Your task to perform on an android device: Show the shopping cart on walmart. Search for "alienware aurora" on walmart, select the first entry, and add it to the cart. Image 0: 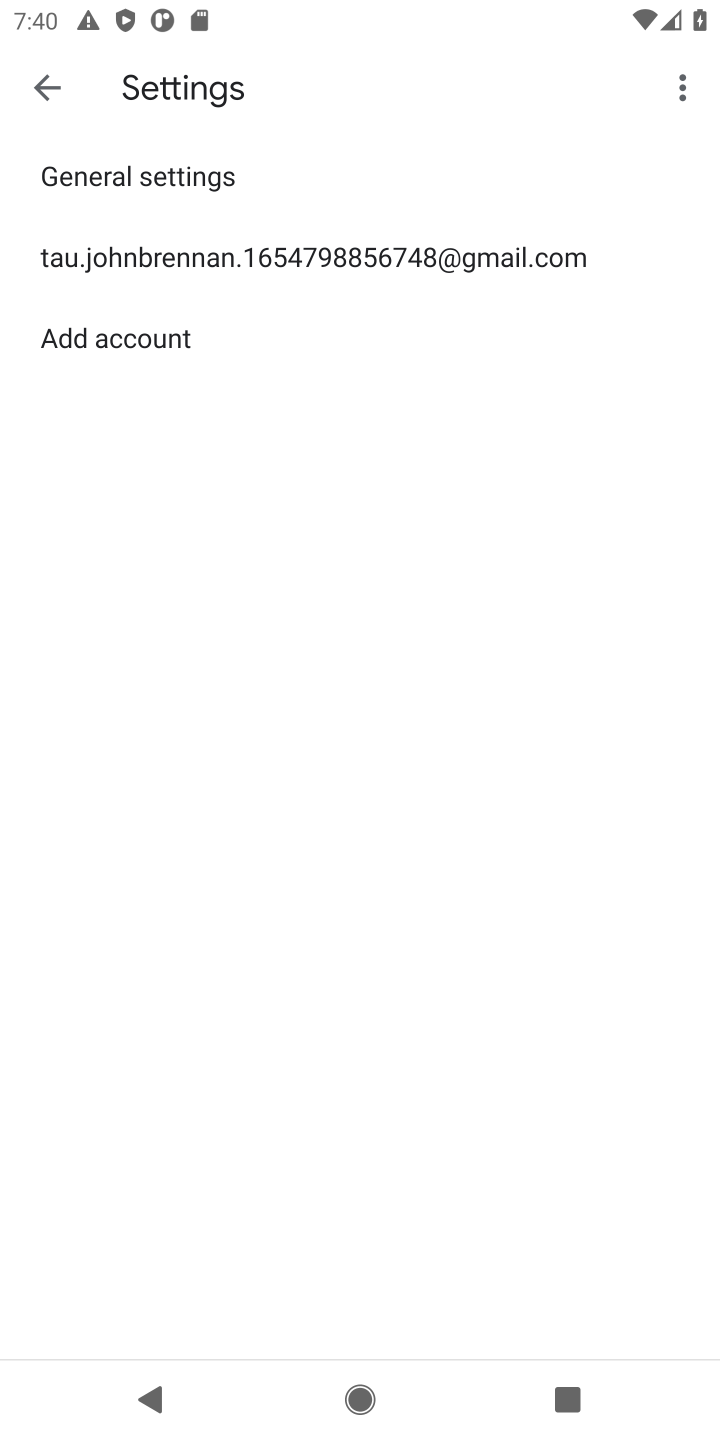
Step 0: press home button
Your task to perform on an android device: Show the shopping cart on walmart. Search for "alienware aurora" on walmart, select the first entry, and add it to the cart. Image 1: 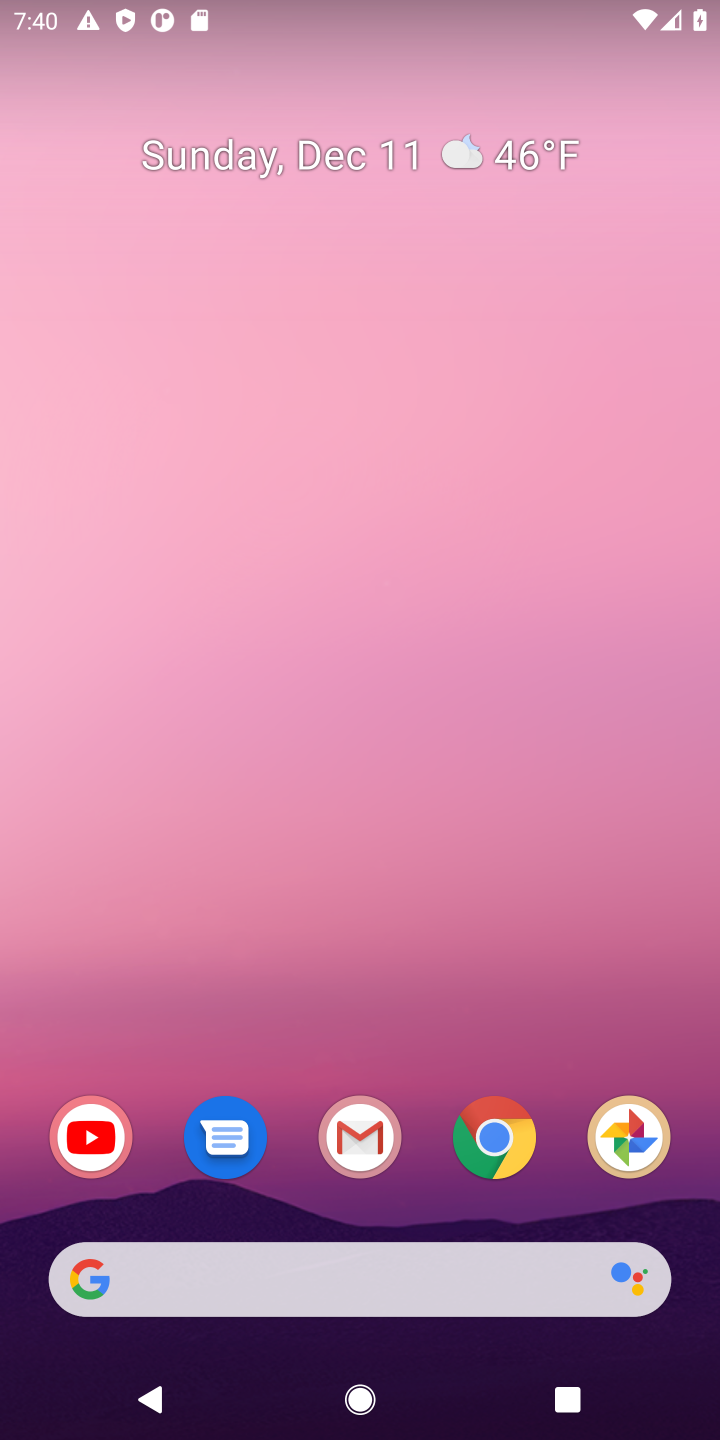
Step 1: click (496, 1143)
Your task to perform on an android device: Show the shopping cart on walmart. Search for "alienware aurora" on walmart, select the first entry, and add it to the cart. Image 2: 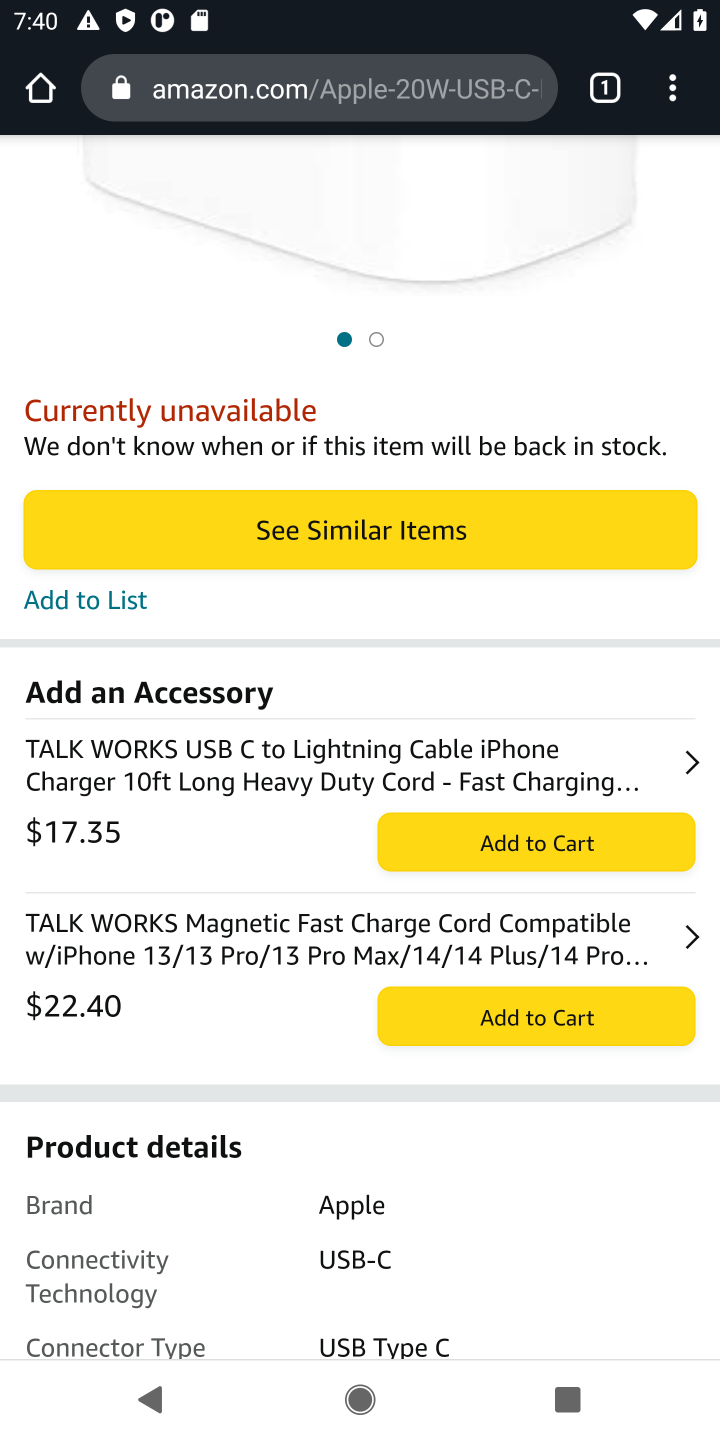
Step 2: click (330, 98)
Your task to perform on an android device: Show the shopping cart on walmart. Search for "alienware aurora" on walmart, select the first entry, and add it to the cart. Image 3: 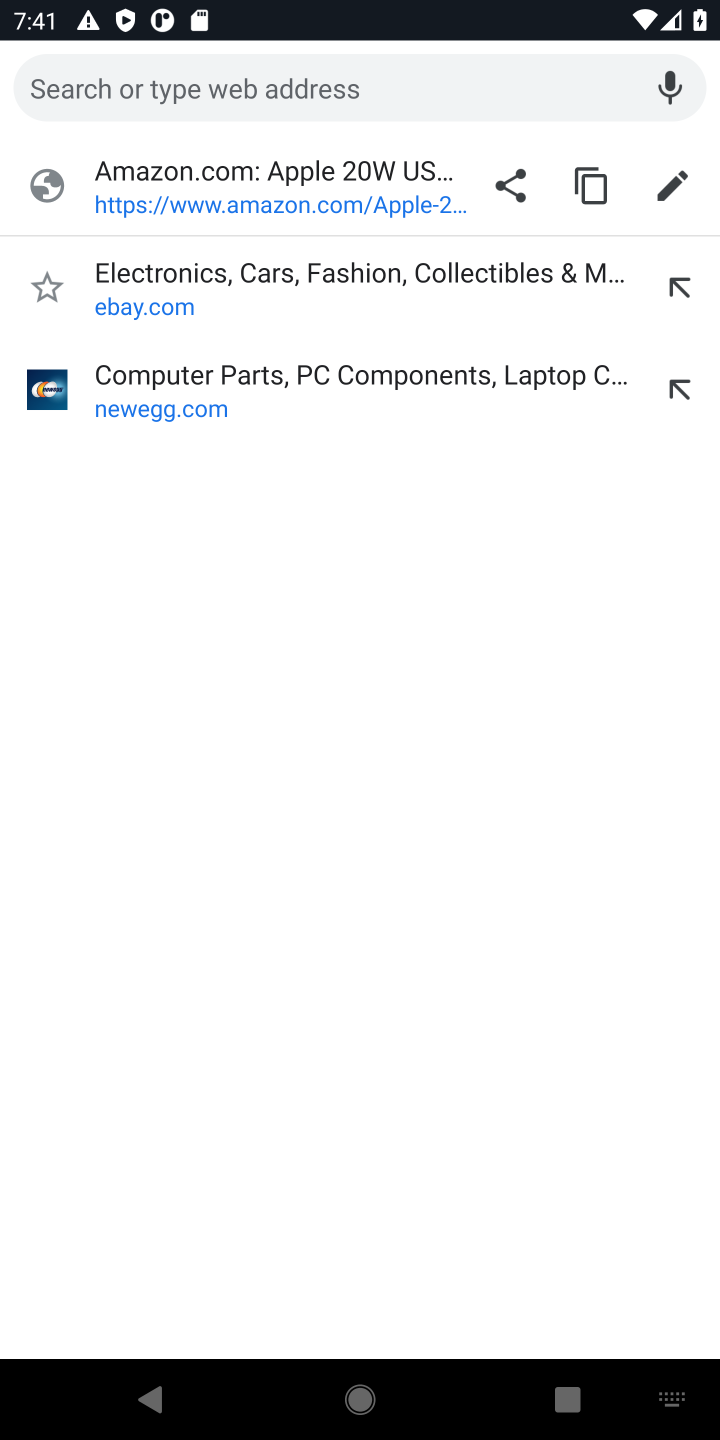
Step 3: type "WALMART"
Your task to perform on an android device: Show the shopping cart on walmart. Search for "alienware aurora" on walmart, select the first entry, and add it to the cart. Image 4: 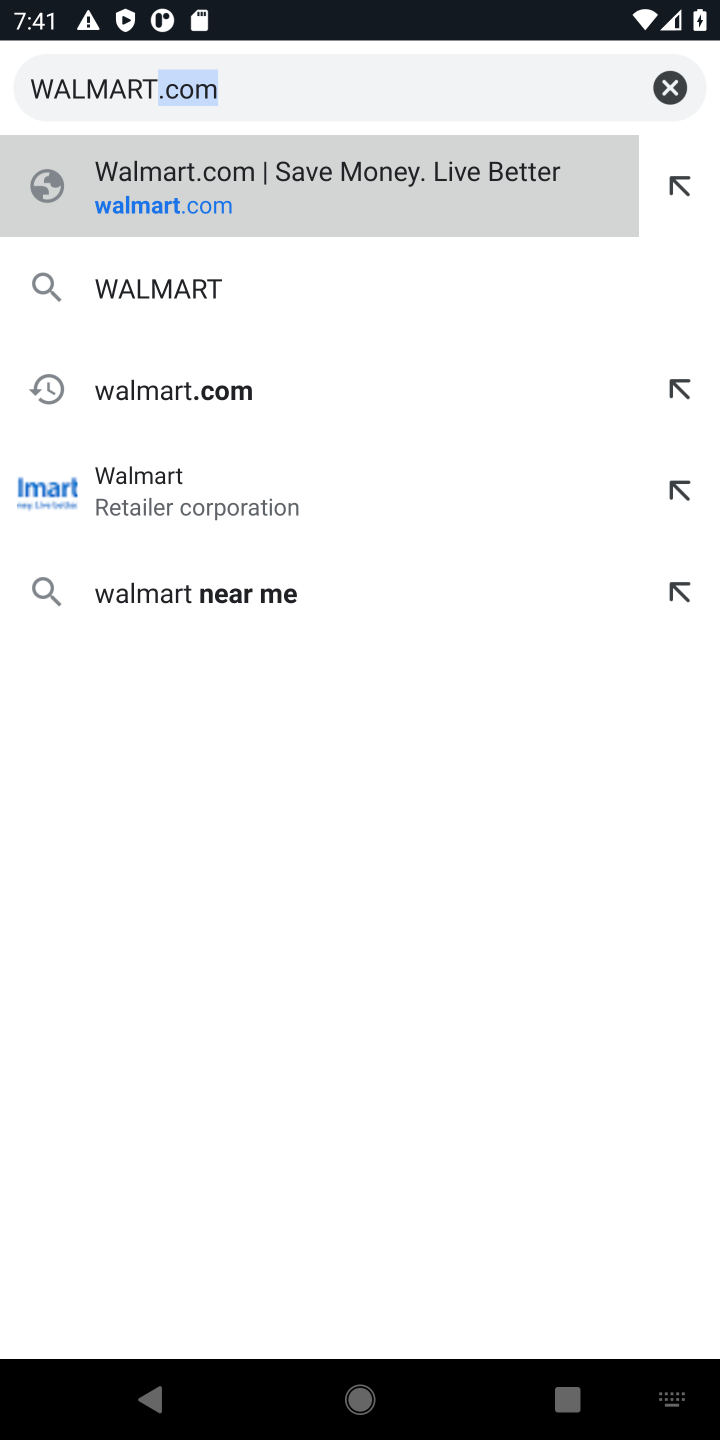
Step 4: click (373, 182)
Your task to perform on an android device: Show the shopping cart on walmart. Search for "alienware aurora" on walmart, select the first entry, and add it to the cart. Image 5: 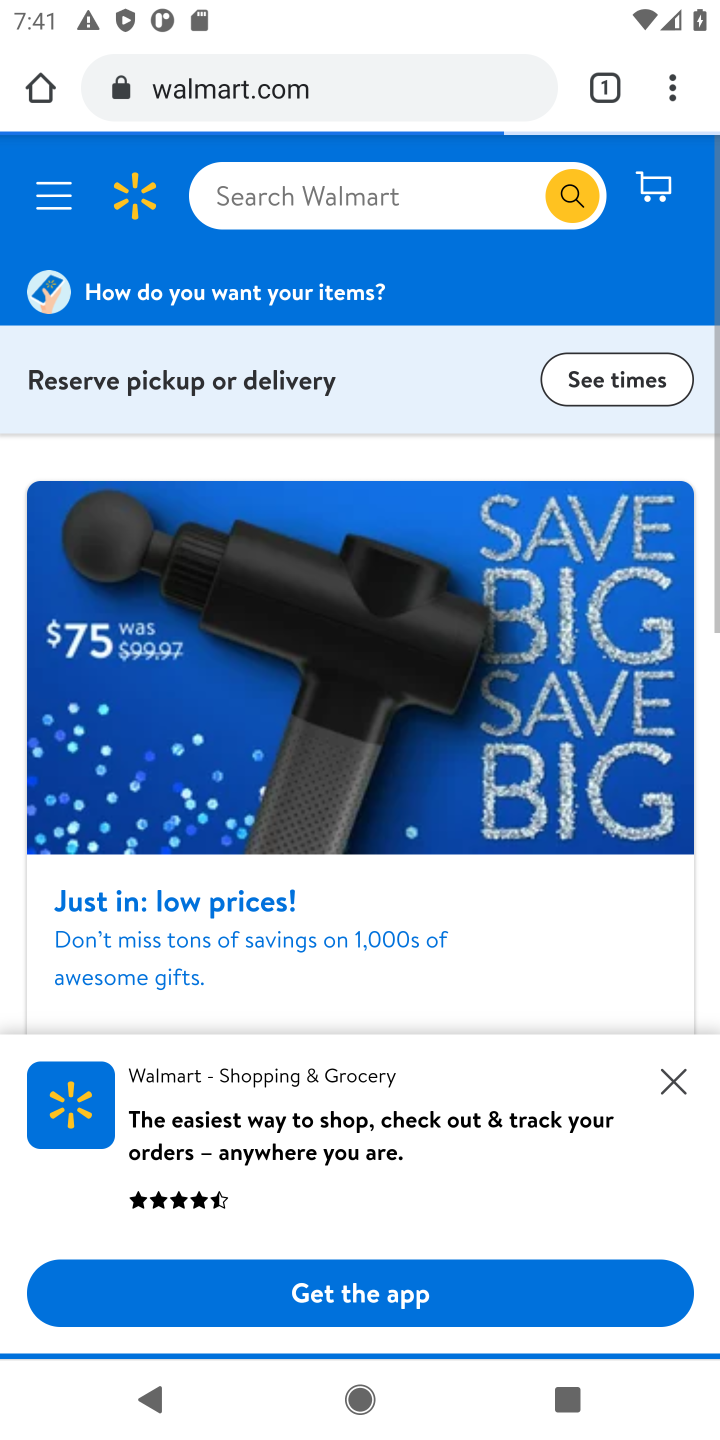
Step 5: click (425, 188)
Your task to perform on an android device: Show the shopping cart on walmart. Search for "alienware aurora" on walmart, select the first entry, and add it to the cart. Image 6: 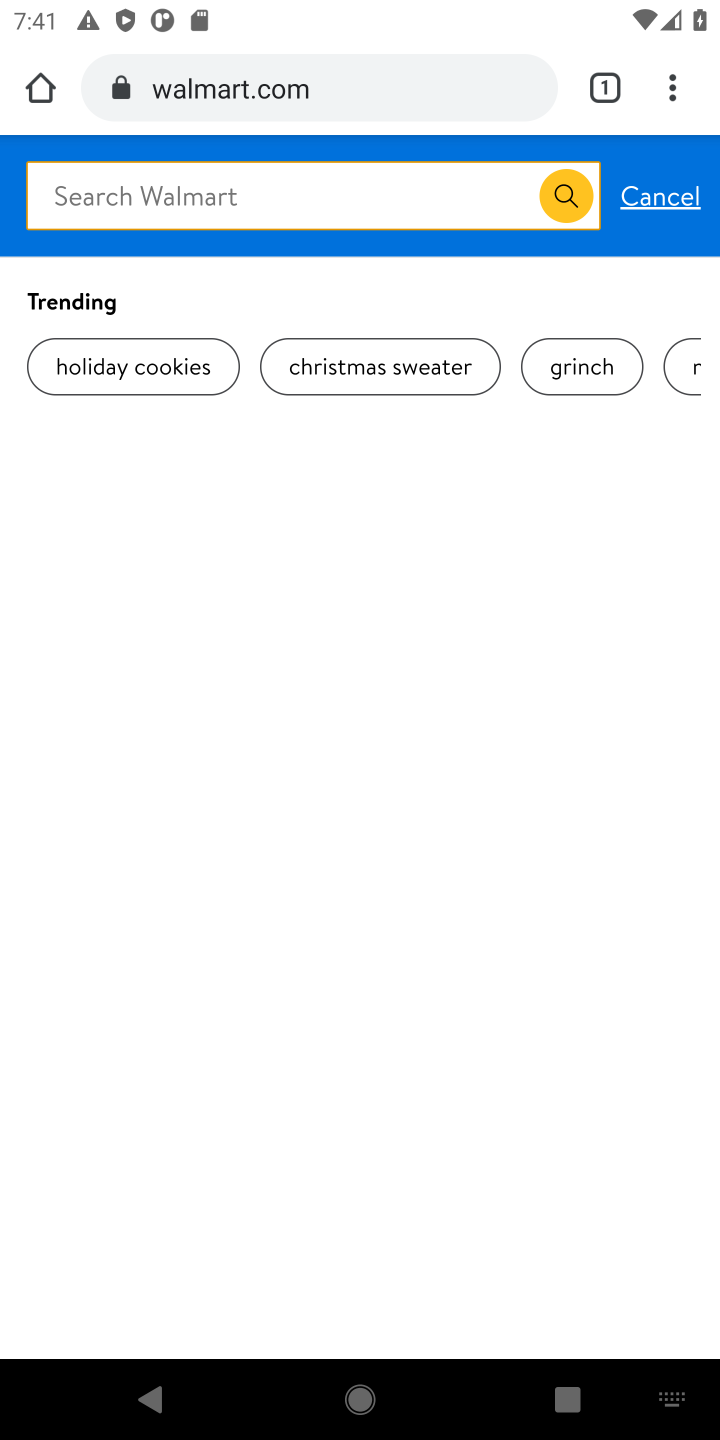
Step 6: type "ALIENWARE AURORA"
Your task to perform on an android device: Show the shopping cart on walmart. Search for "alienware aurora" on walmart, select the first entry, and add it to the cart. Image 7: 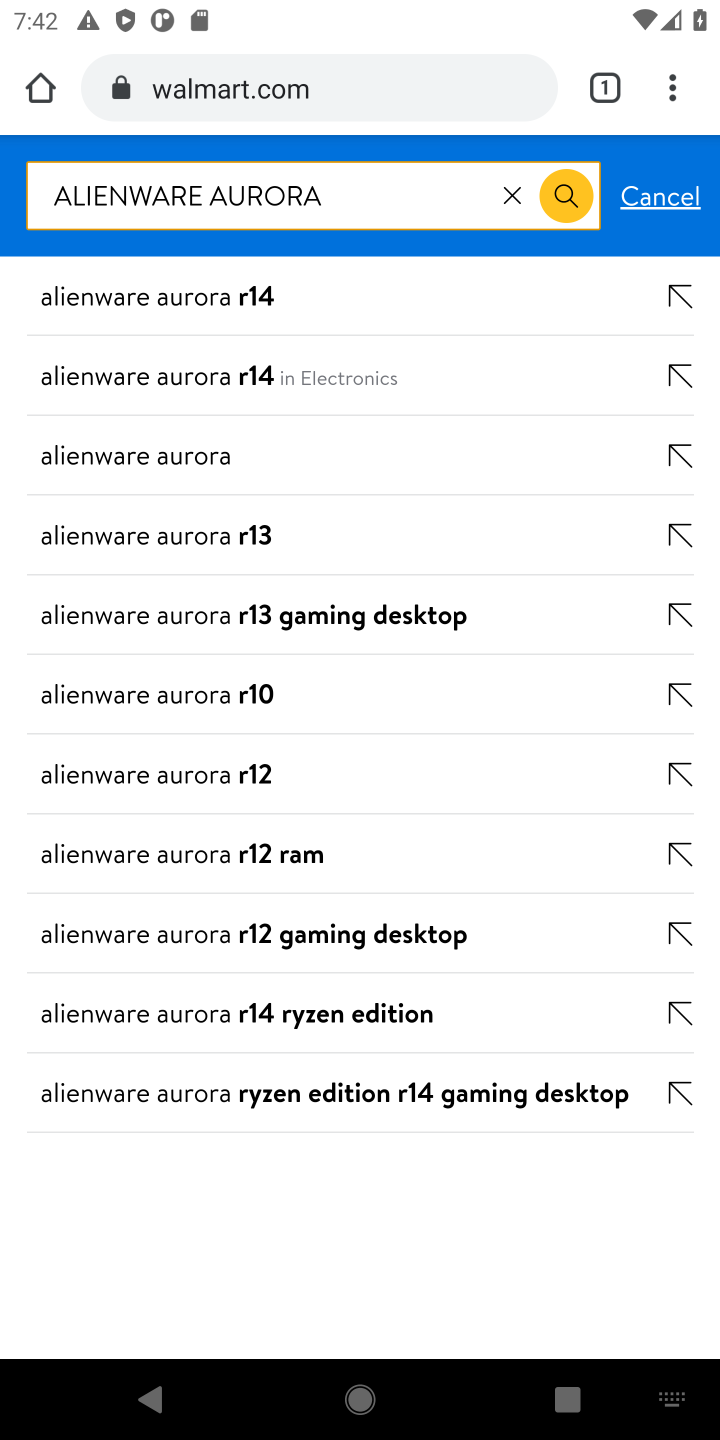
Step 7: click (107, 301)
Your task to perform on an android device: Show the shopping cart on walmart. Search for "alienware aurora" on walmart, select the first entry, and add it to the cart. Image 8: 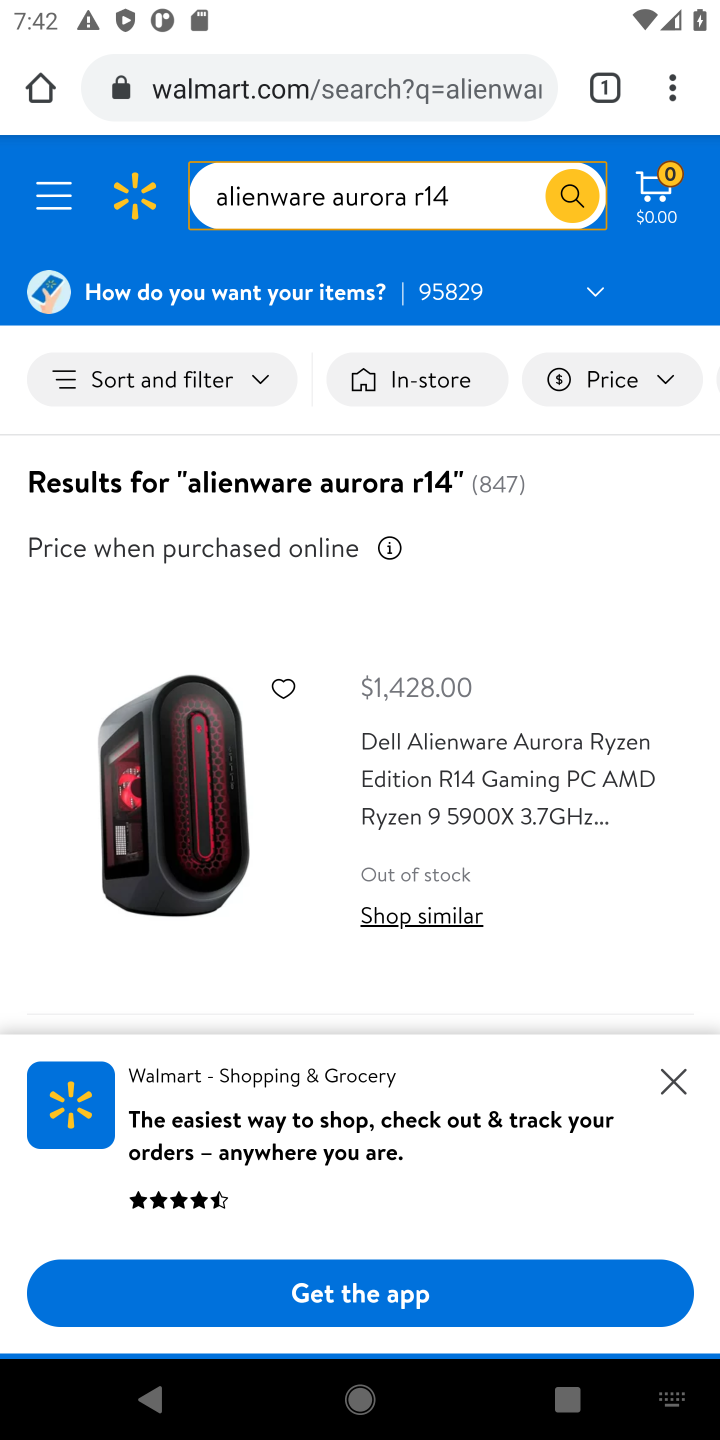
Step 8: click (671, 1090)
Your task to perform on an android device: Show the shopping cart on walmart. Search for "alienware aurora" on walmart, select the first entry, and add it to the cart. Image 9: 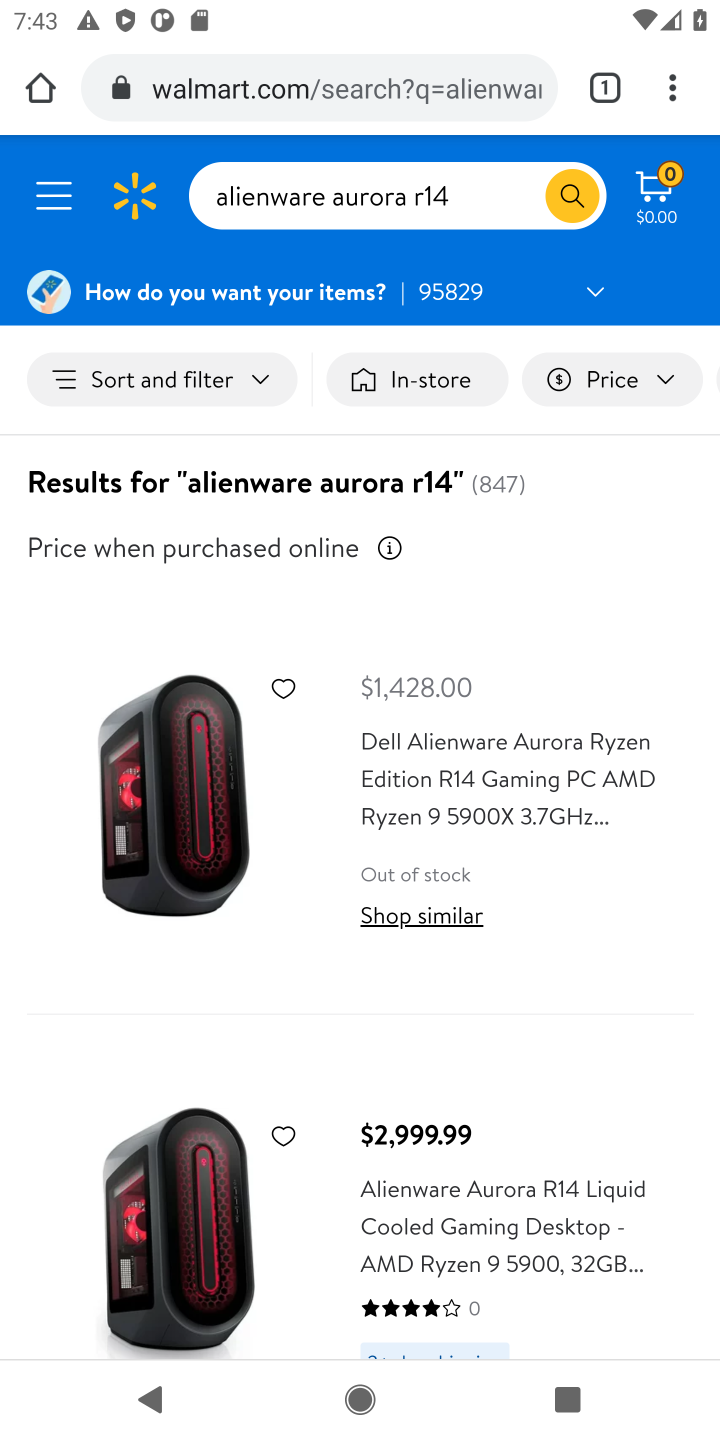
Step 9: click (500, 761)
Your task to perform on an android device: Show the shopping cart on walmart. Search for "alienware aurora" on walmart, select the first entry, and add it to the cart. Image 10: 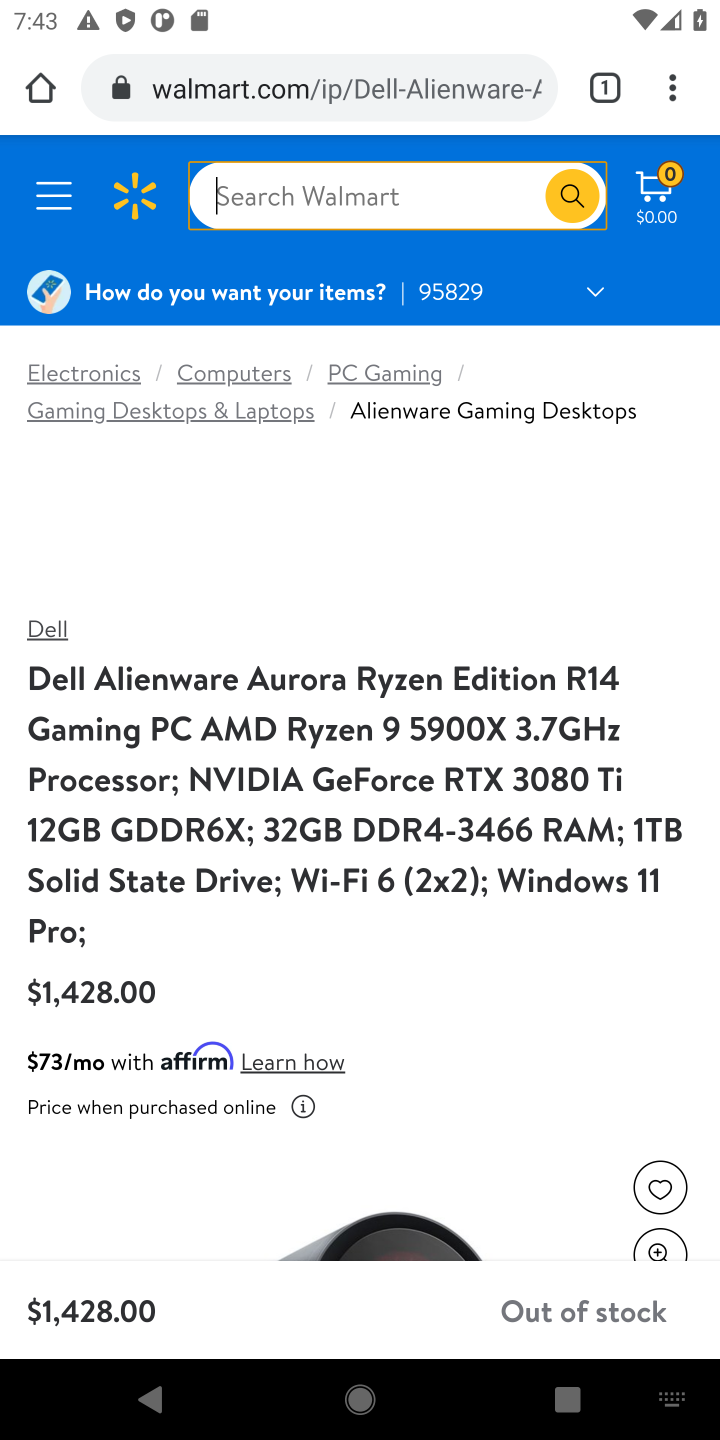
Step 10: task complete